Your task to perform on an android device: Search for a custom-made wallet on Etsy Image 0: 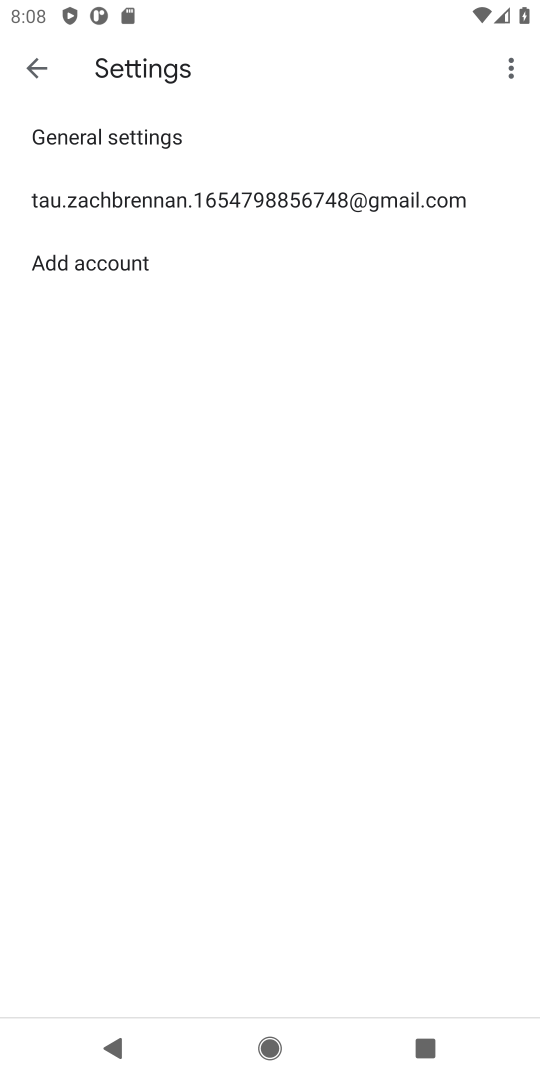
Step 0: press back button
Your task to perform on an android device: Search for a custom-made wallet on Etsy Image 1: 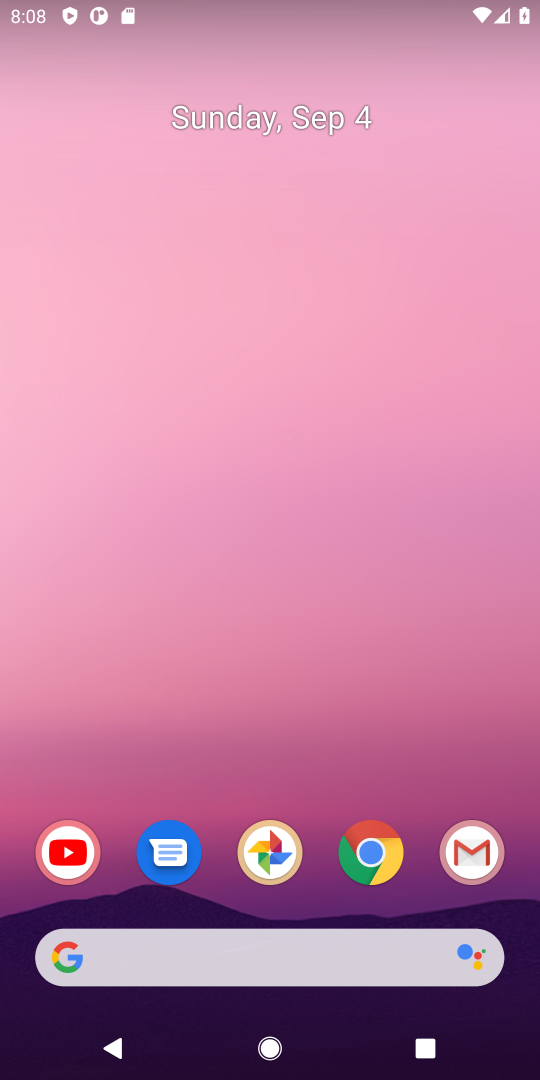
Step 1: drag from (396, 720) to (183, 173)
Your task to perform on an android device: Search for a custom-made wallet on Etsy Image 2: 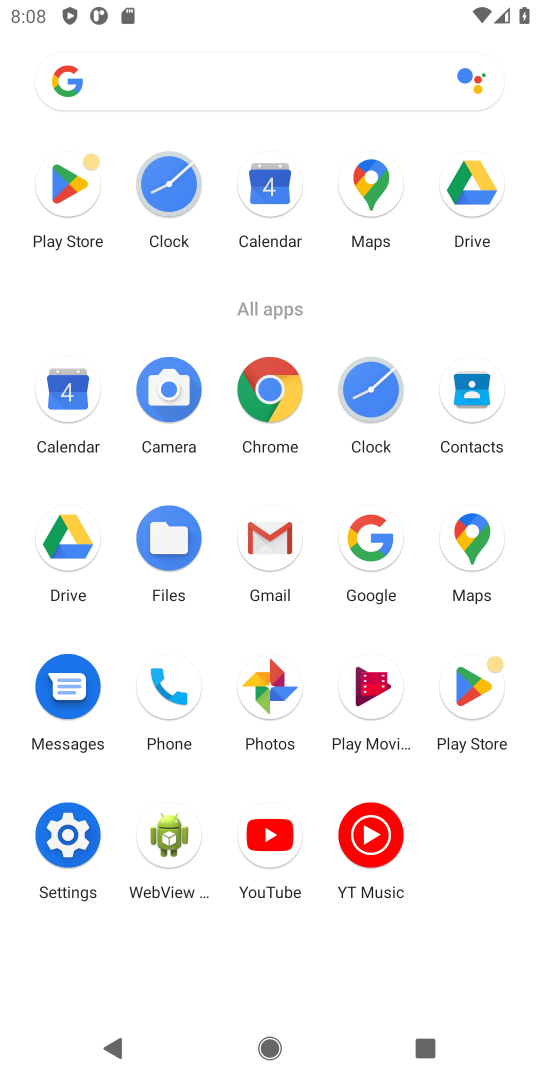
Step 2: click (365, 544)
Your task to perform on an android device: Search for a custom-made wallet on Etsy Image 3: 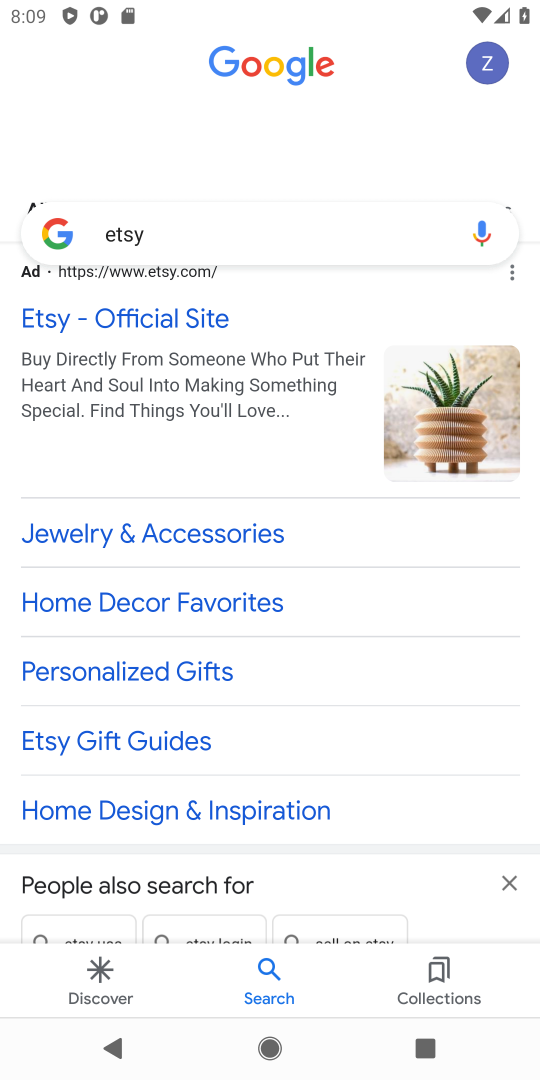
Step 3: press back button
Your task to perform on an android device: Search for a custom-made wallet on Etsy Image 4: 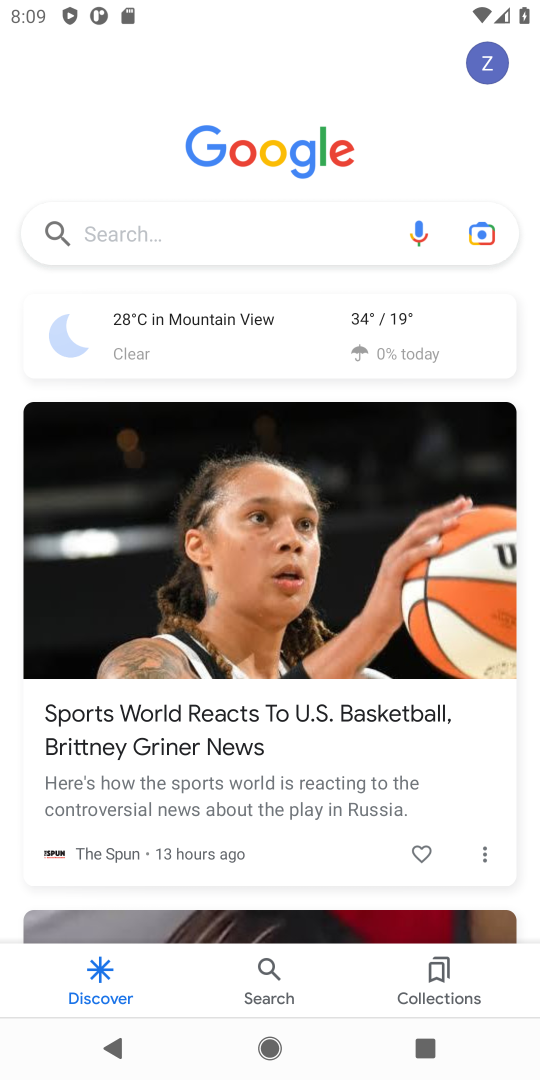
Step 4: click (217, 226)
Your task to perform on an android device: Search for a custom-made wallet on Etsy Image 5: 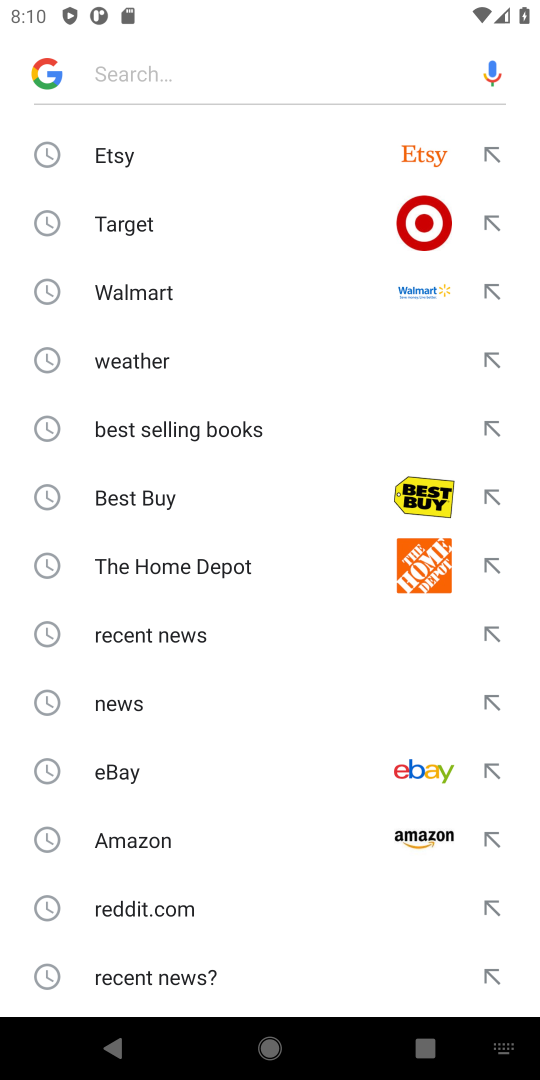
Step 5: click (127, 168)
Your task to perform on an android device: Search for a custom-made wallet on Etsy Image 6: 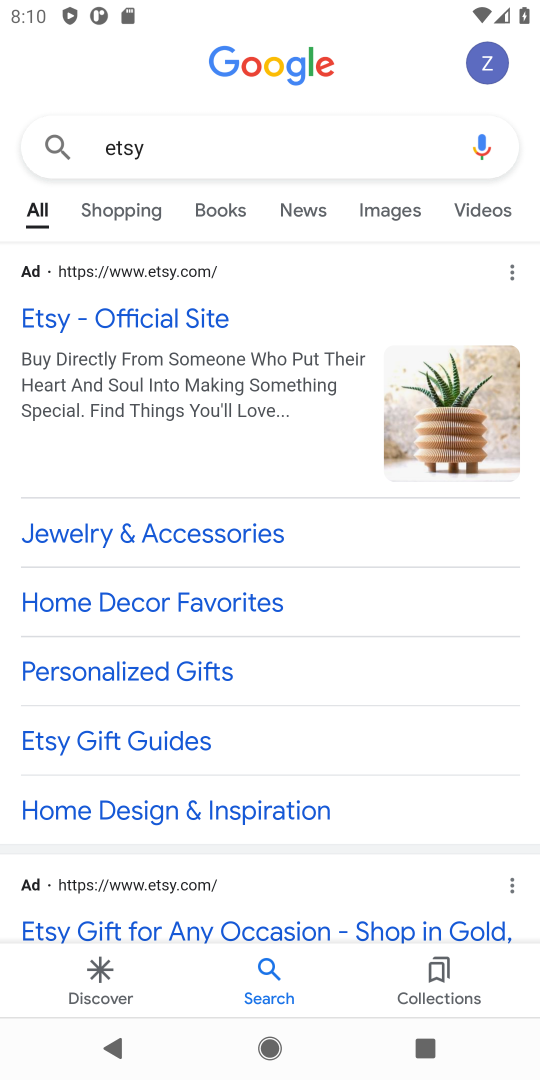
Step 6: click (183, 311)
Your task to perform on an android device: Search for a custom-made wallet on Etsy Image 7: 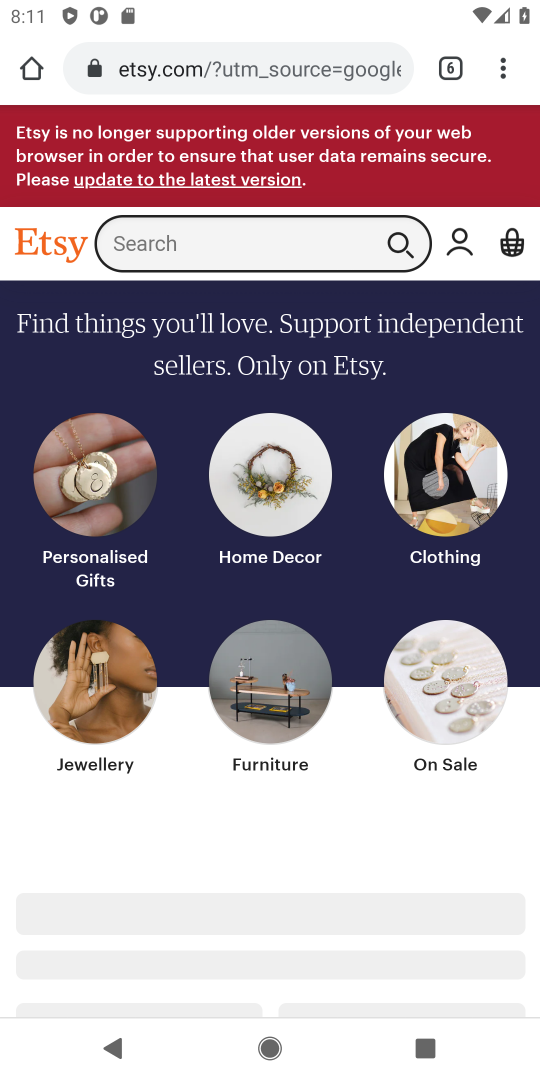
Step 7: click (205, 251)
Your task to perform on an android device: Search for a custom-made wallet on Etsy Image 8: 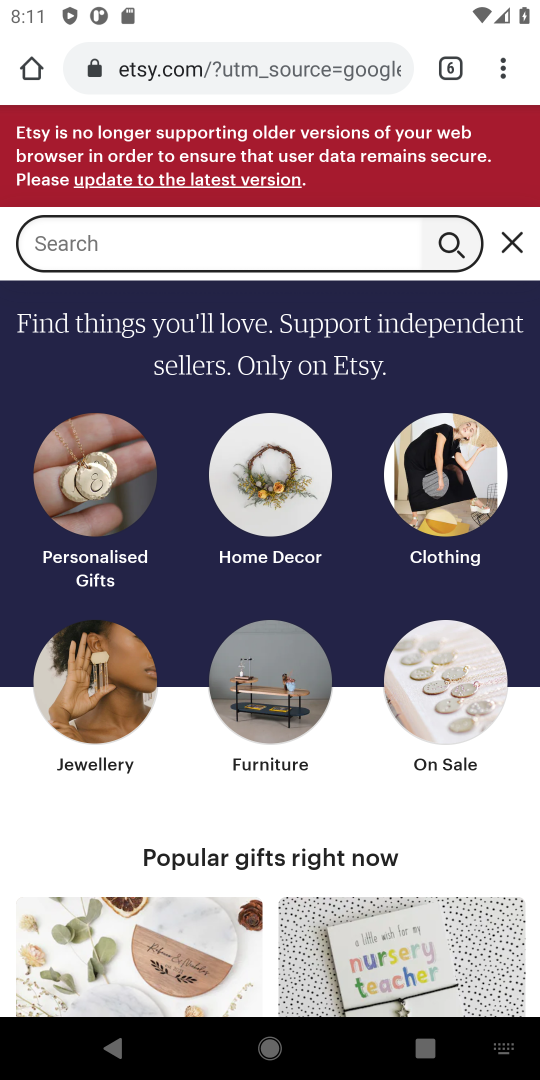
Step 8: type "custom-made wallet"
Your task to perform on an android device: Search for a custom-made wallet on Etsy Image 9: 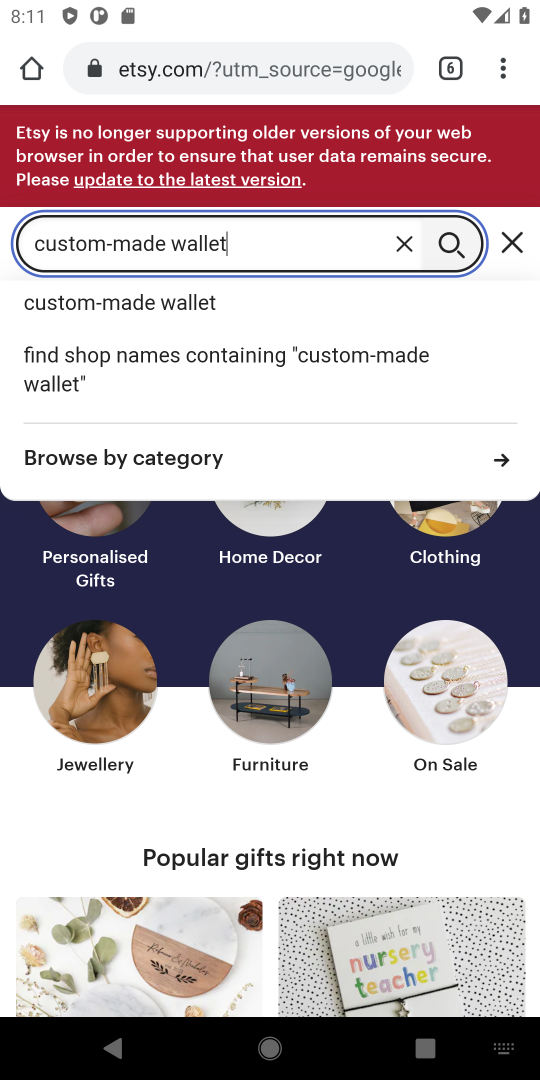
Step 9: click (135, 302)
Your task to perform on an android device: Search for a custom-made wallet on Etsy Image 10: 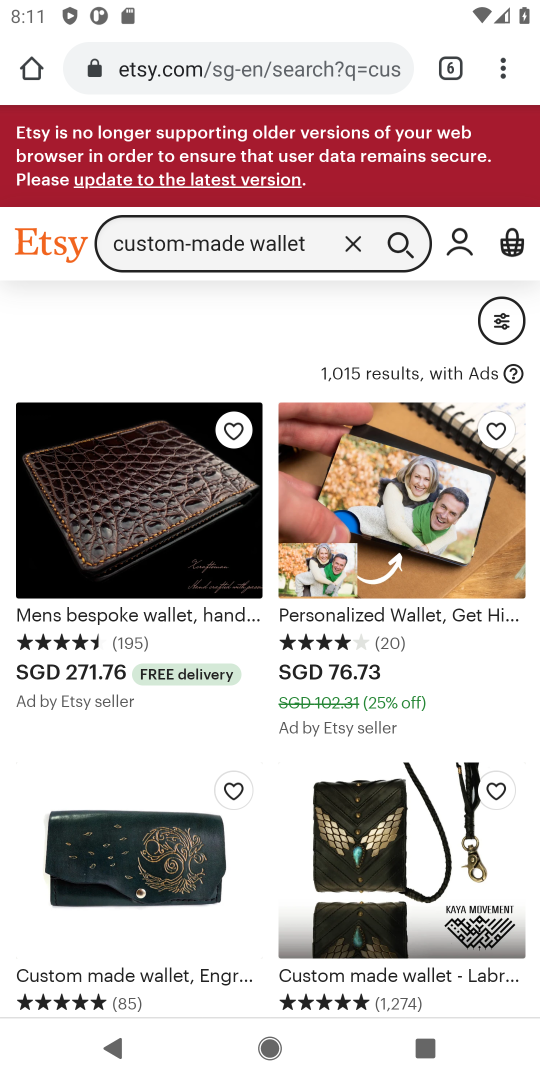
Step 10: task complete